Your task to perform on an android device: Open Google Maps and go to "Timeline" Image 0: 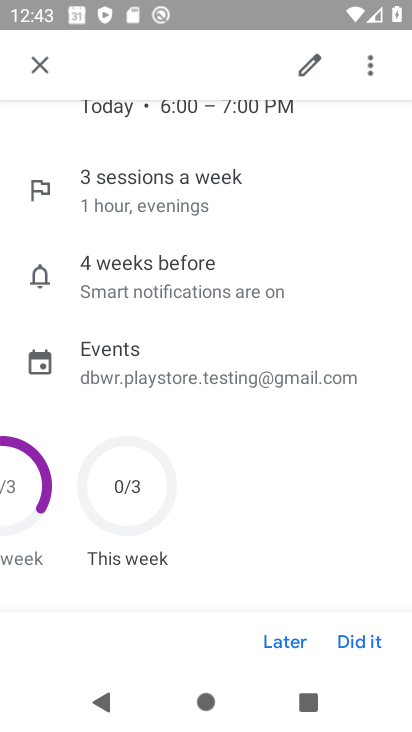
Step 0: press home button
Your task to perform on an android device: Open Google Maps and go to "Timeline" Image 1: 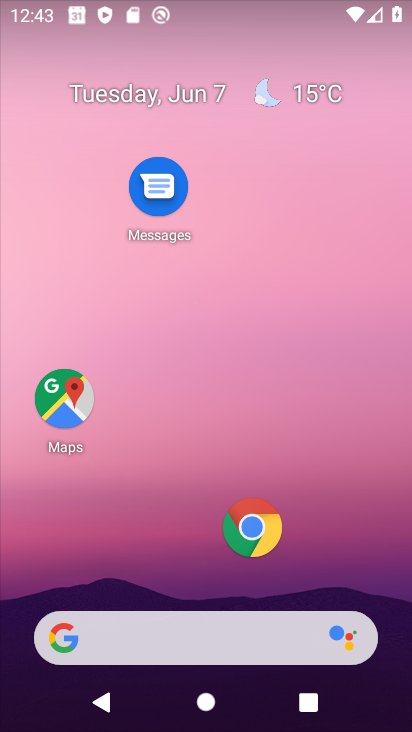
Step 1: click (71, 400)
Your task to perform on an android device: Open Google Maps and go to "Timeline" Image 2: 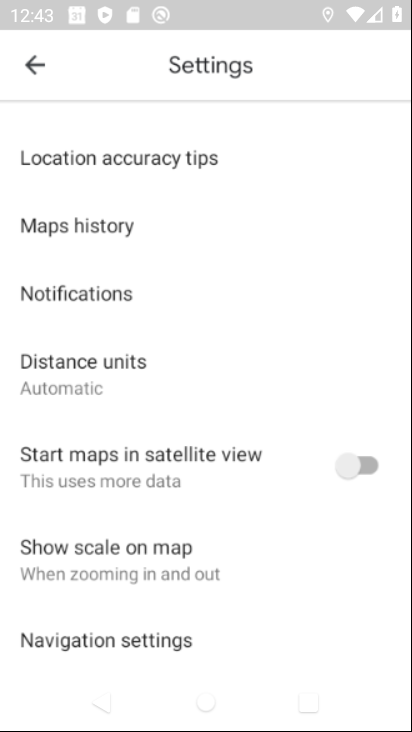
Step 2: click (34, 76)
Your task to perform on an android device: Open Google Maps and go to "Timeline" Image 3: 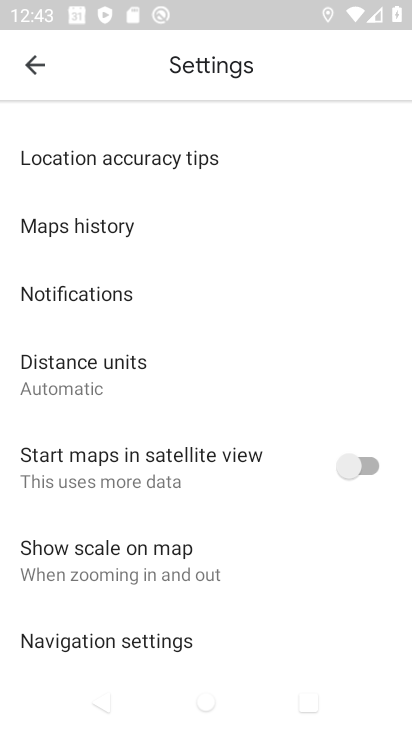
Step 3: click (34, 67)
Your task to perform on an android device: Open Google Maps and go to "Timeline" Image 4: 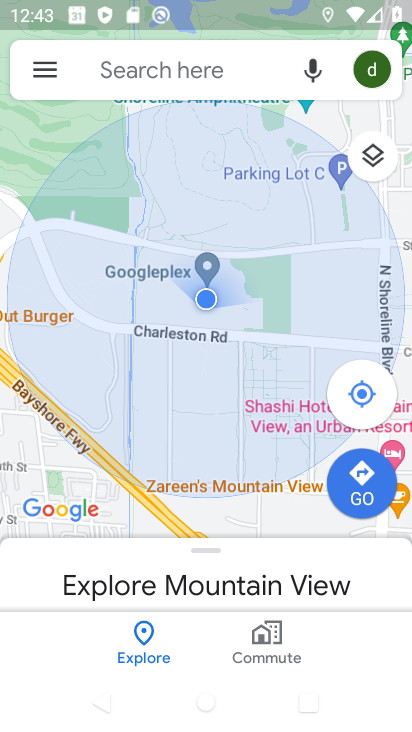
Step 4: click (47, 76)
Your task to perform on an android device: Open Google Maps and go to "Timeline" Image 5: 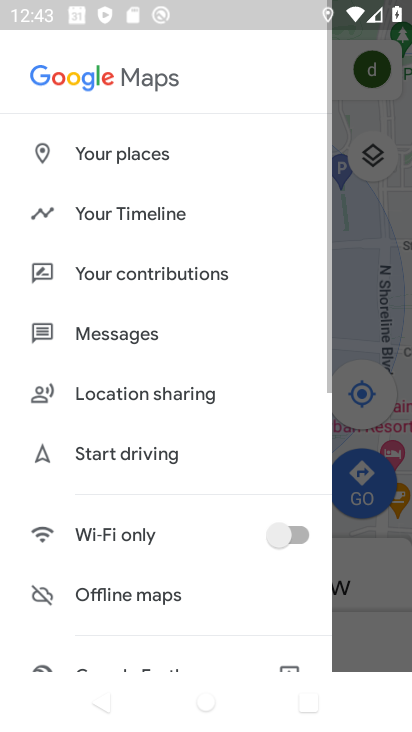
Step 5: click (114, 227)
Your task to perform on an android device: Open Google Maps and go to "Timeline" Image 6: 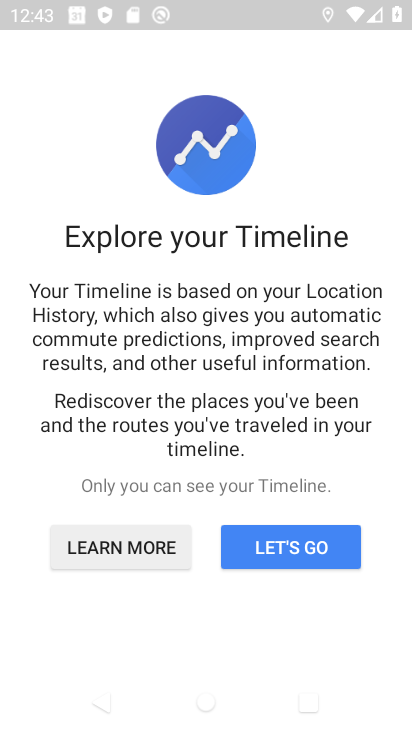
Step 6: click (277, 532)
Your task to perform on an android device: Open Google Maps and go to "Timeline" Image 7: 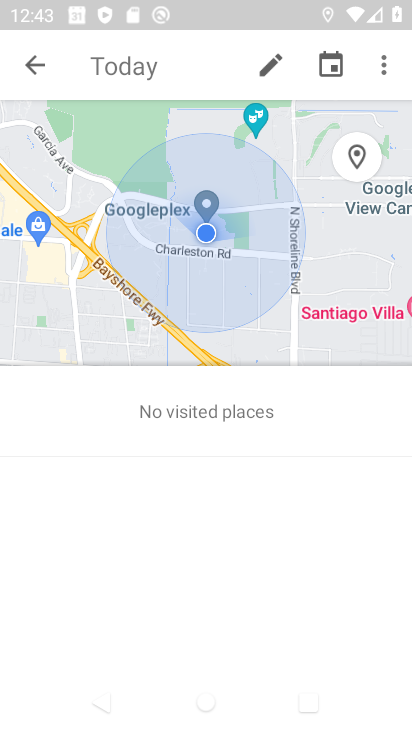
Step 7: task complete